Your task to perform on an android device: turn off data saver in the chrome app Image 0: 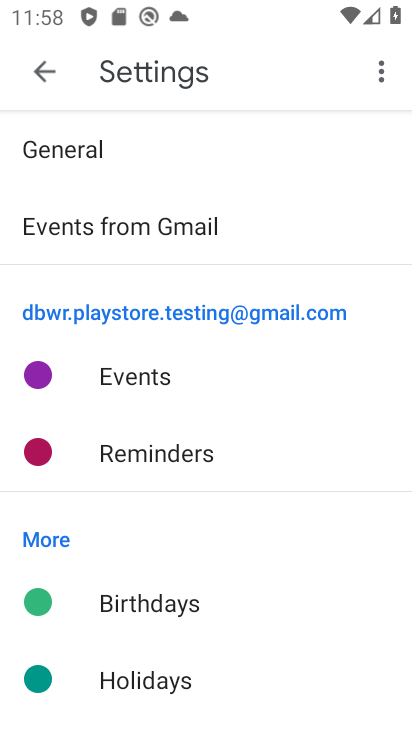
Step 0: press home button
Your task to perform on an android device: turn off data saver in the chrome app Image 1: 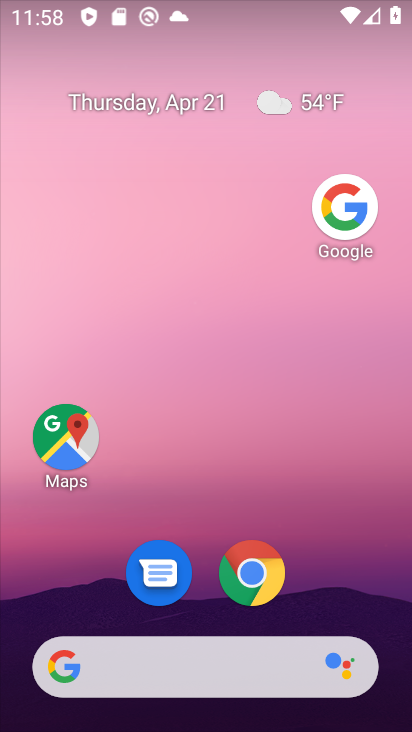
Step 1: drag from (145, 656) to (379, 5)
Your task to perform on an android device: turn off data saver in the chrome app Image 2: 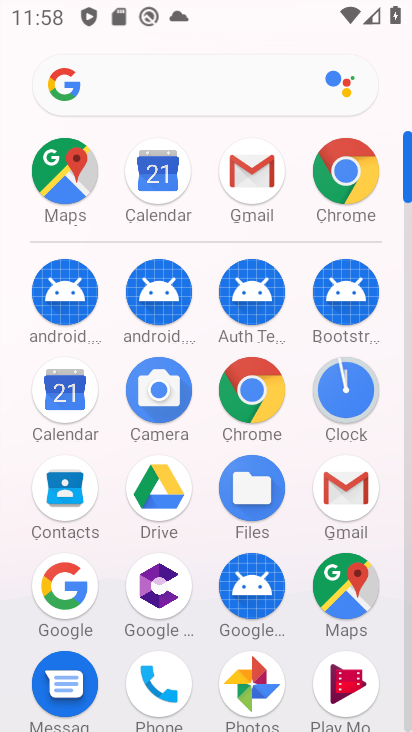
Step 2: click (359, 189)
Your task to perform on an android device: turn off data saver in the chrome app Image 3: 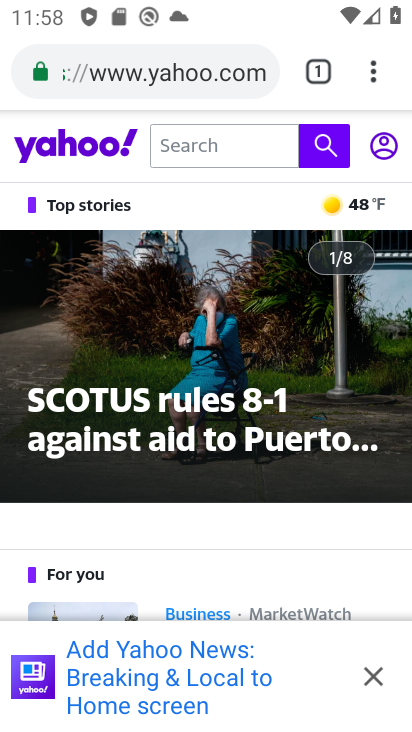
Step 3: click (363, 86)
Your task to perform on an android device: turn off data saver in the chrome app Image 4: 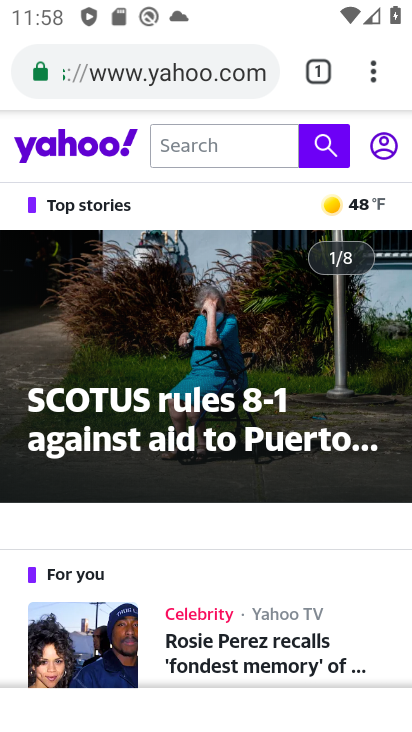
Step 4: click (363, 86)
Your task to perform on an android device: turn off data saver in the chrome app Image 5: 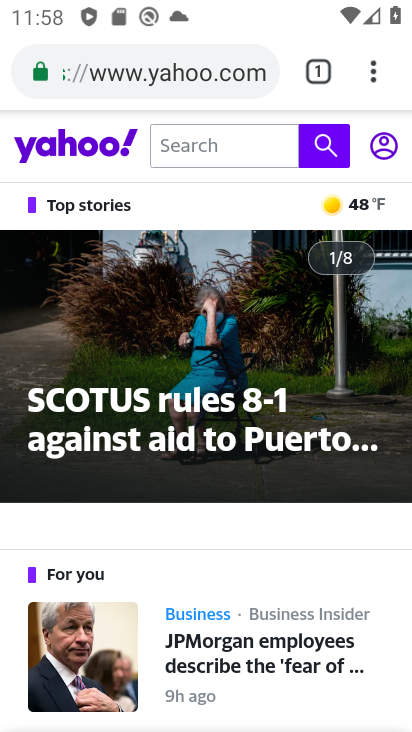
Step 5: click (370, 89)
Your task to perform on an android device: turn off data saver in the chrome app Image 6: 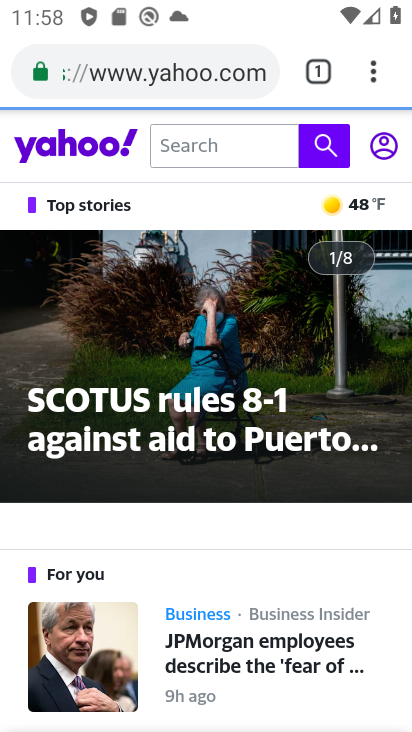
Step 6: click (361, 89)
Your task to perform on an android device: turn off data saver in the chrome app Image 7: 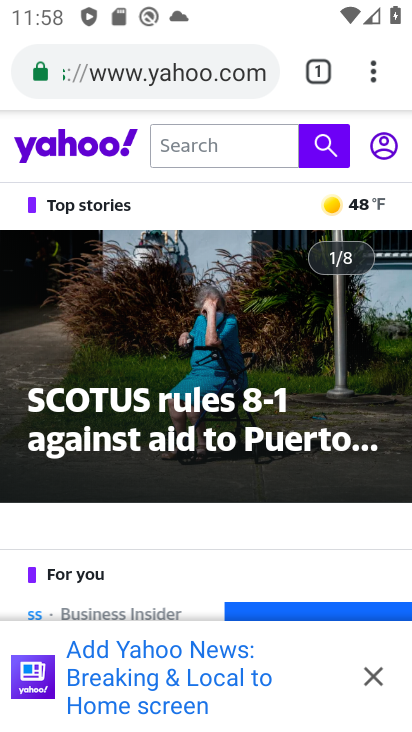
Step 7: click (366, 74)
Your task to perform on an android device: turn off data saver in the chrome app Image 8: 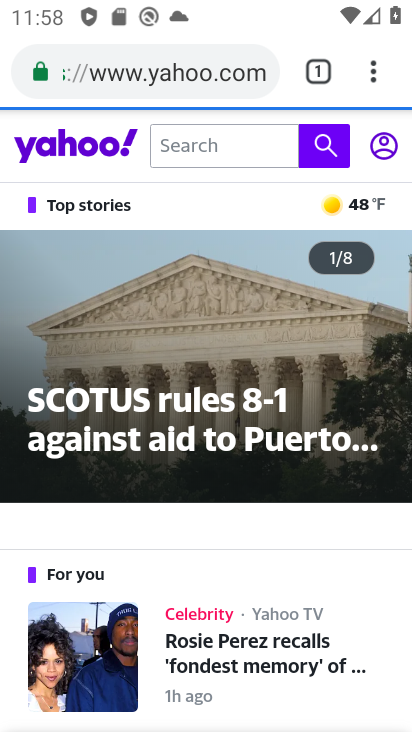
Step 8: click (363, 83)
Your task to perform on an android device: turn off data saver in the chrome app Image 9: 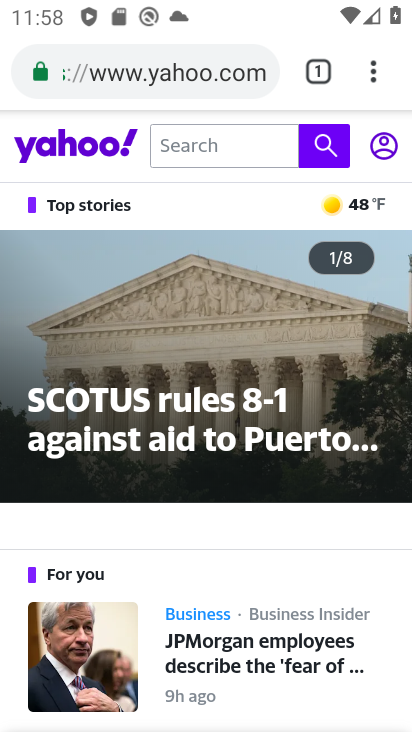
Step 9: click (369, 88)
Your task to perform on an android device: turn off data saver in the chrome app Image 10: 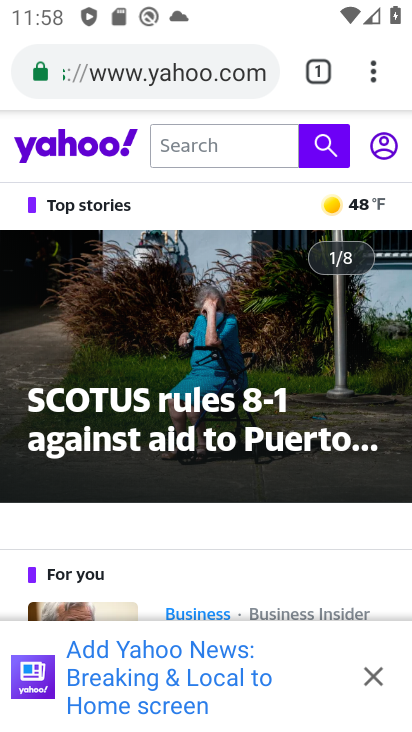
Step 10: click (377, 95)
Your task to perform on an android device: turn off data saver in the chrome app Image 11: 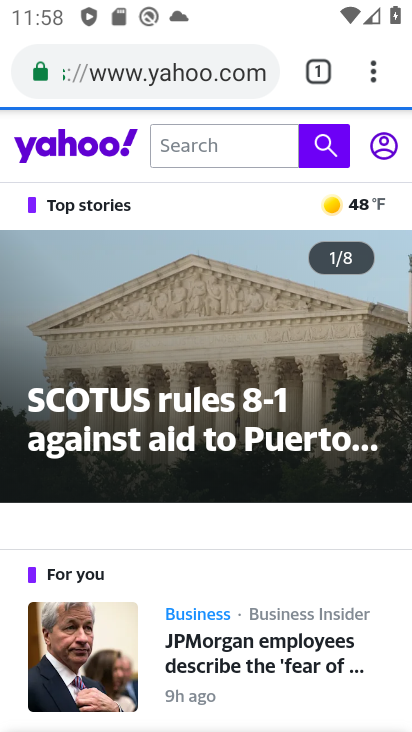
Step 11: click (366, 97)
Your task to perform on an android device: turn off data saver in the chrome app Image 12: 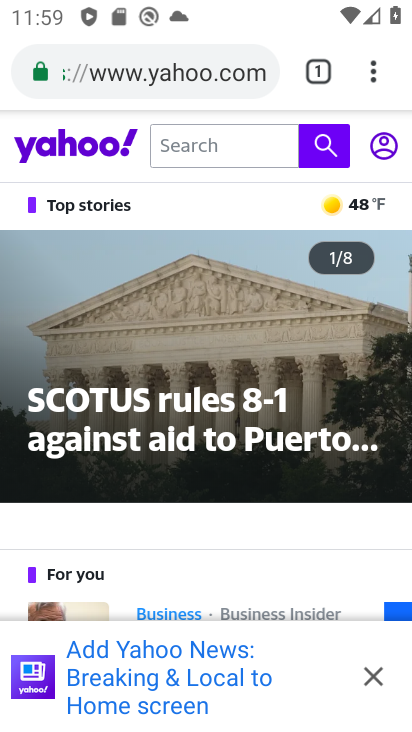
Step 12: click (364, 91)
Your task to perform on an android device: turn off data saver in the chrome app Image 13: 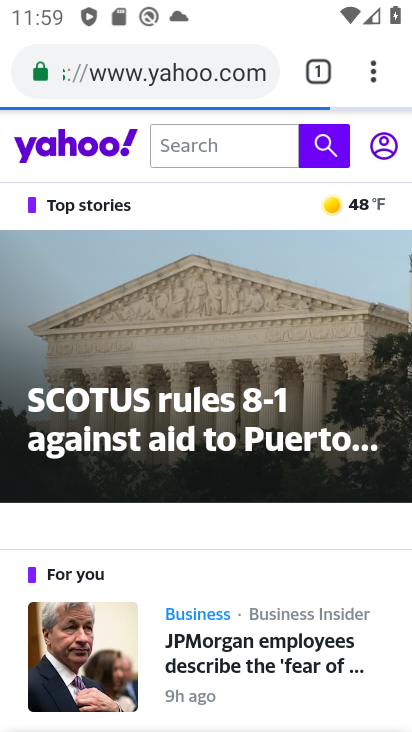
Step 13: click (360, 81)
Your task to perform on an android device: turn off data saver in the chrome app Image 14: 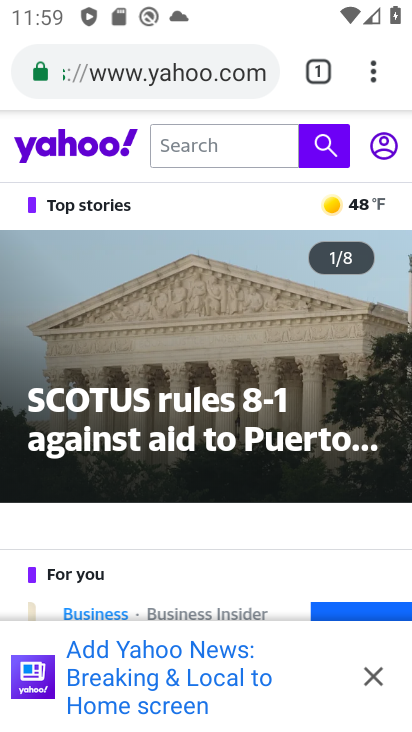
Step 14: click (360, 73)
Your task to perform on an android device: turn off data saver in the chrome app Image 15: 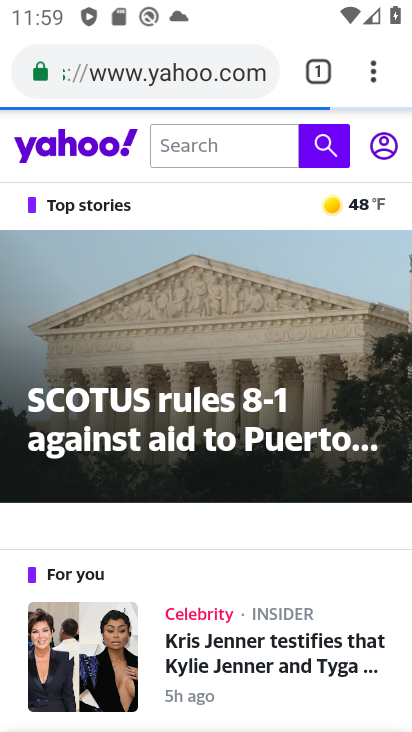
Step 15: click (358, 73)
Your task to perform on an android device: turn off data saver in the chrome app Image 16: 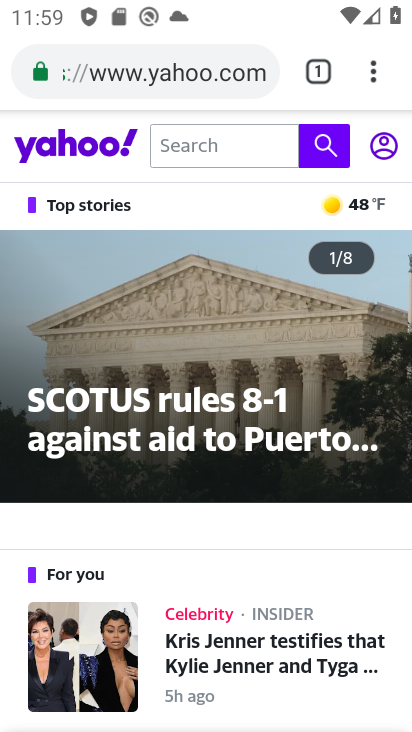
Step 16: click (359, 88)
Your task to perform on an android device: turn off data saver in the chrome app Image 17: 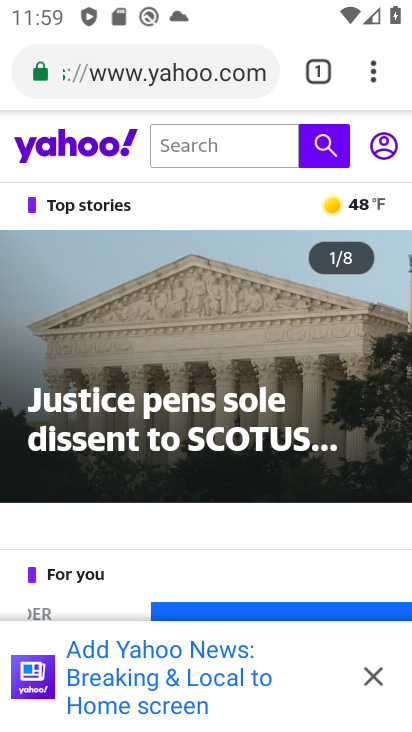
Step 17: drag from (374, 76) to (147, 566)
Your task to perform on an android device: turn off data saver in the chrome app Image 18: 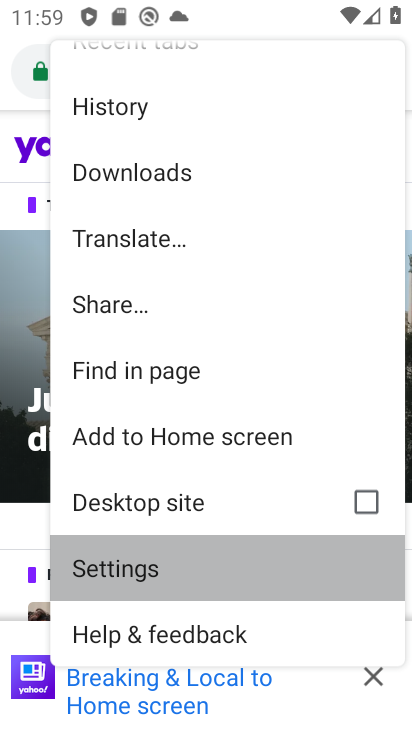
Step 18: click (147, 566)
Your task to perform on an android device: turn off data saver in the chrome app Image 19: 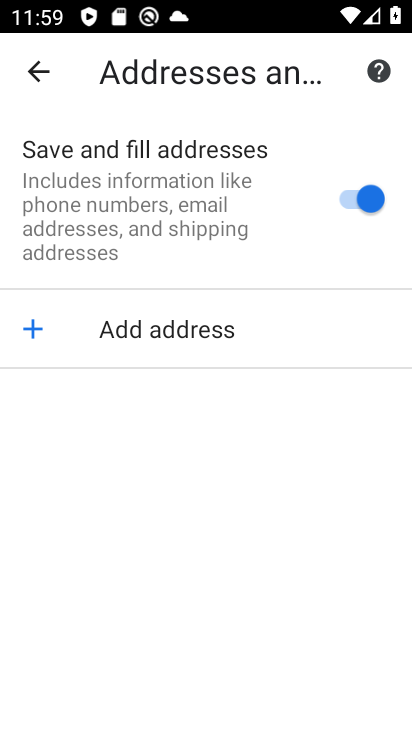
Step 19: click (37, 66)
Your task to perform on an android device: turn off data saver in the chrome app Image 20: 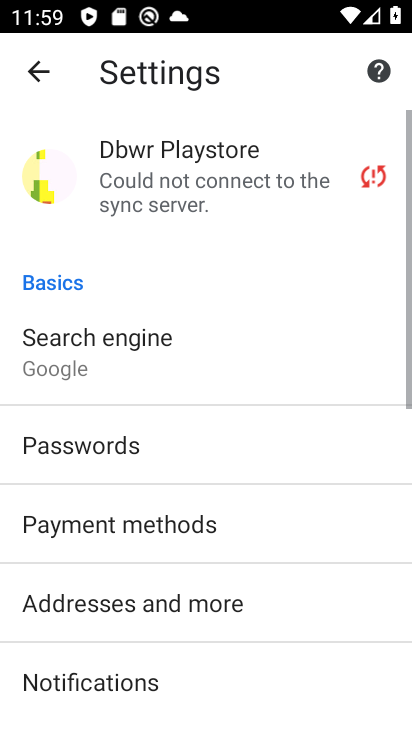
Step 20: drag from (151, 627) to (333, 187)
Your task to perform on an android device: turn off data saver in the chrome app Image 21: 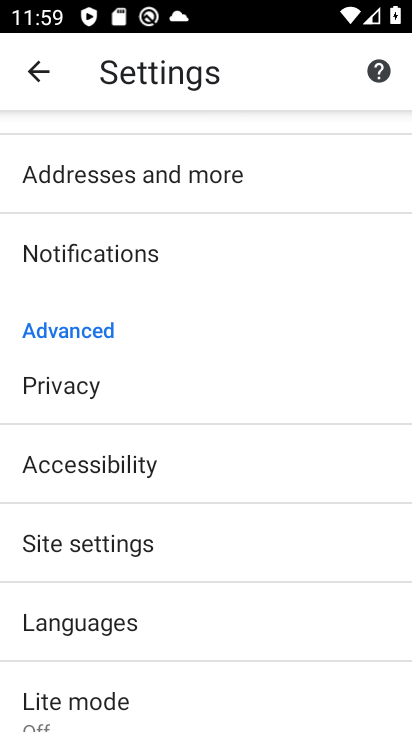
Step 21: click (92, 698)
Your task to perform on an android device: turn off data saver in the chrome app Image 22: 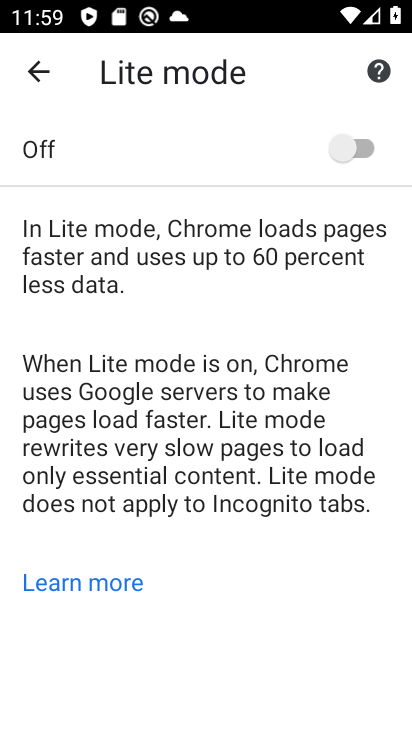
Step 22: task complete